Your task to perform on an android device: Turn off the flashlight Image 0: 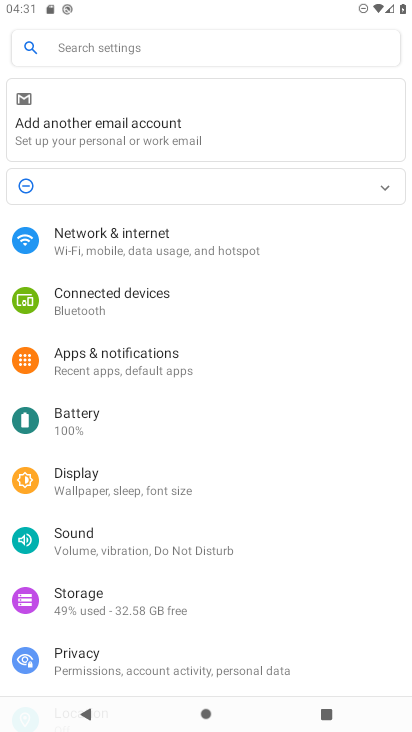
Step 0: drag from (194, 587) to (235, 151)
Your task to perform on an android device: Turn off the flashlight Image 1: 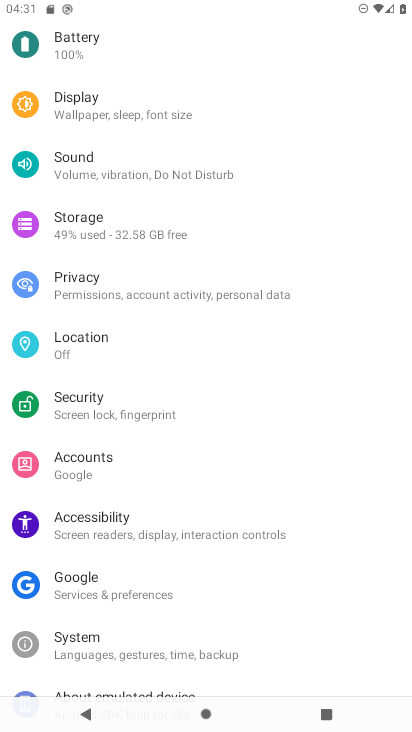
Step 1: task complete